Your task to perform on an android device: read, delete, or share a saved page in the chrome app Image 0: 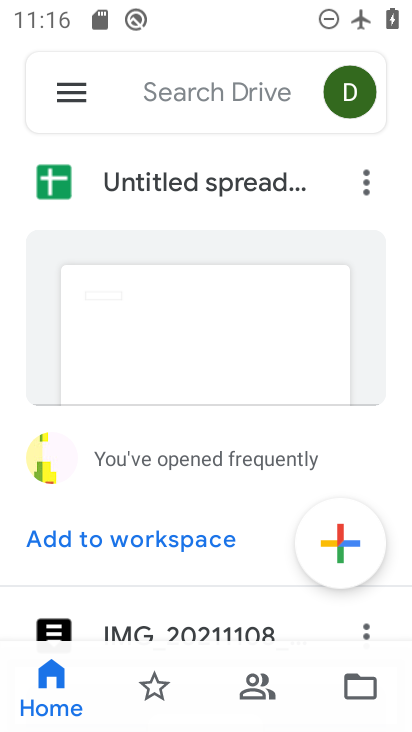
Step 0: press home button
Your task to perform on an android device: read, delete, or share a saved page in the chrome app Image 1: 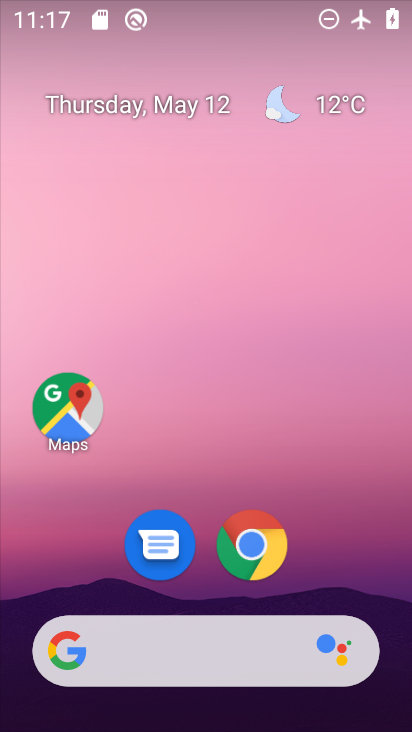
Step 1: click (252, 542)
Your task to perform on an android device: read, delete, or share a saved page in the chrome app Image 2: 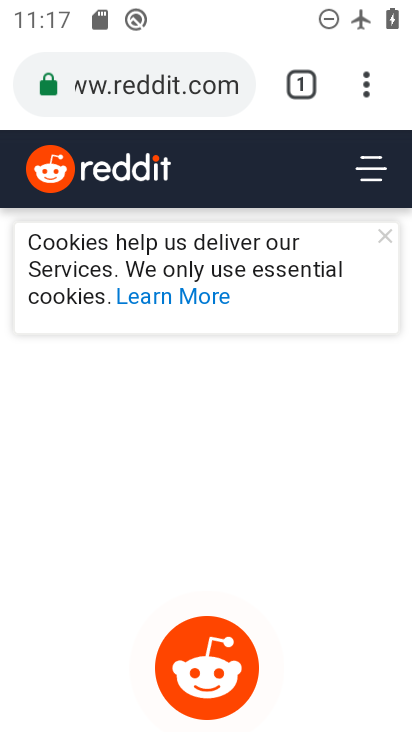
Step 2: click (367, 90)
Your task to perform on an android device: read, delete, or share a saved page in the chrome app Image 3: 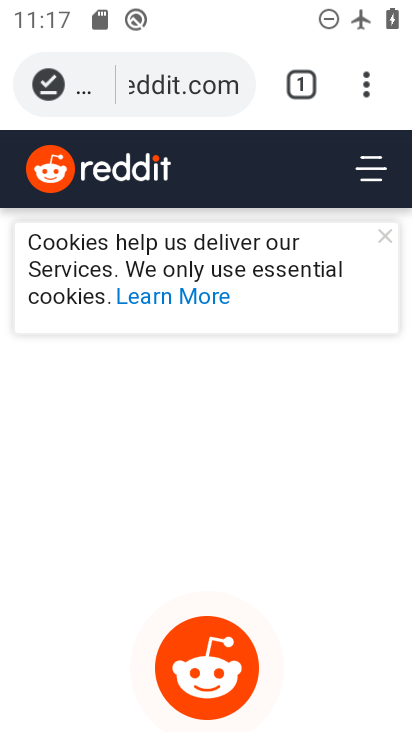
Step 3: click (367, 80)
Your task to perform on an android device: read, delete, or share a saved page in the chrome app Image 4: 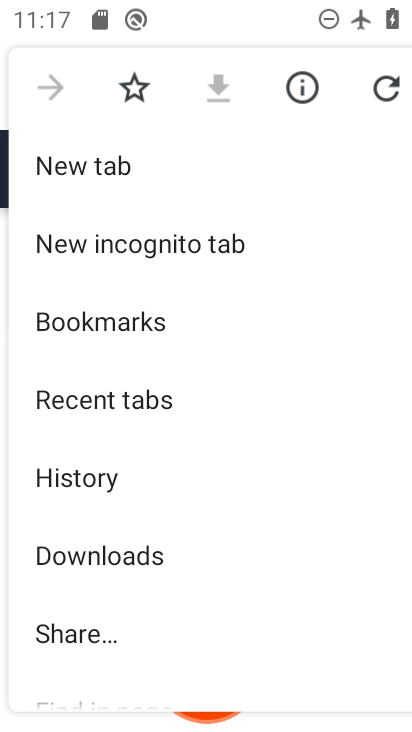
Step 4: click (180, 552)
Your task to perform on an android device: read, delete, or share a saved page in the chrome app Image 5: 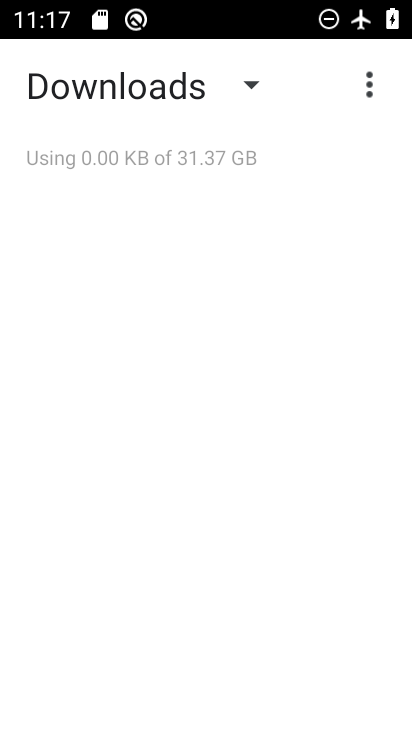
Step 5: task complete